Your task to perform on an android device: Open notification settings Image 0: 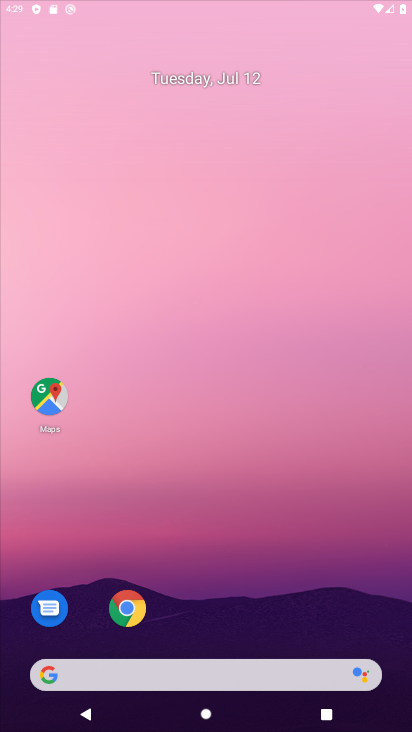
Step 0: click (152, 139)
Your task to perform on an android device: Open notification settings Image 1: 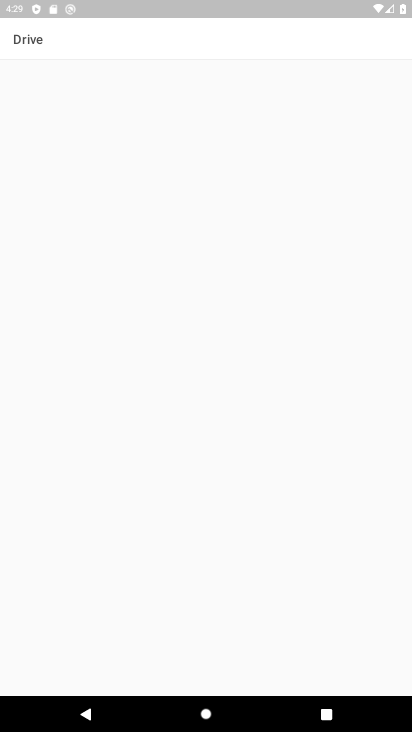
Step 1: press home button
Your task to perform on an android device: Open notification settings Image 2: 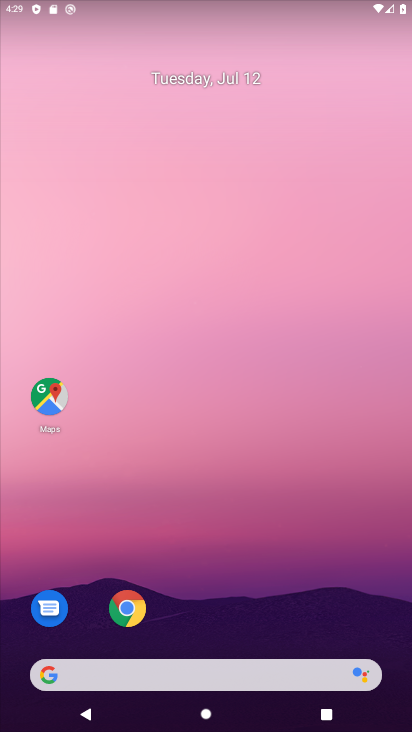
Step 2: drag from (188, 623) to (116, 110)
Your task to perform on an android device: Open notification settings Image 3: 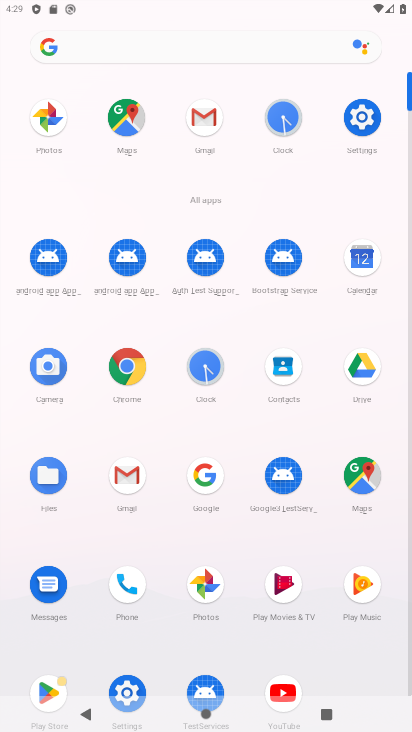
Step 3: click (355, 109)
Your task to perform on an android device: Open notification settings Image 4: 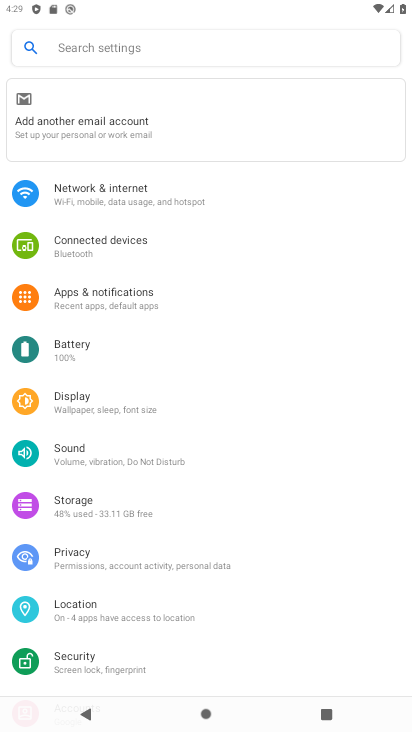
Step 4: click (111, 300)
Your task to perform on an android device: Open notification settings Image 5: 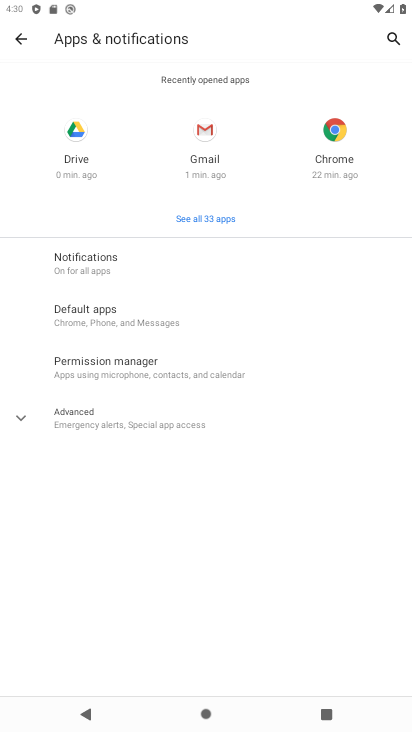
Step 5: click (110, 267)
Your task to perform on an android device: Open notification settings Image 6: 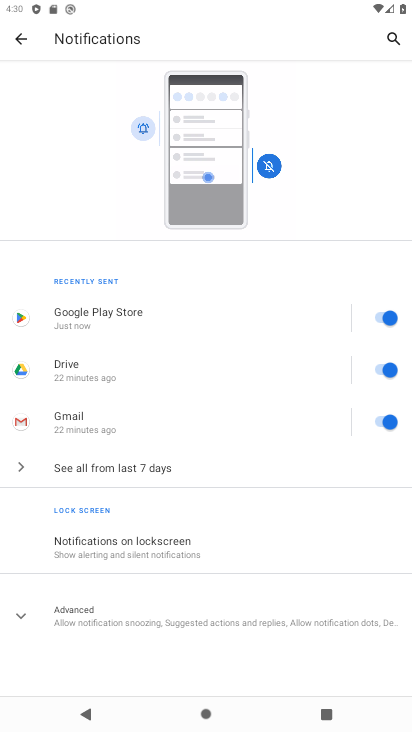
Step 6: task complete